Your task to perform on an android device: Open network settings Image 0: 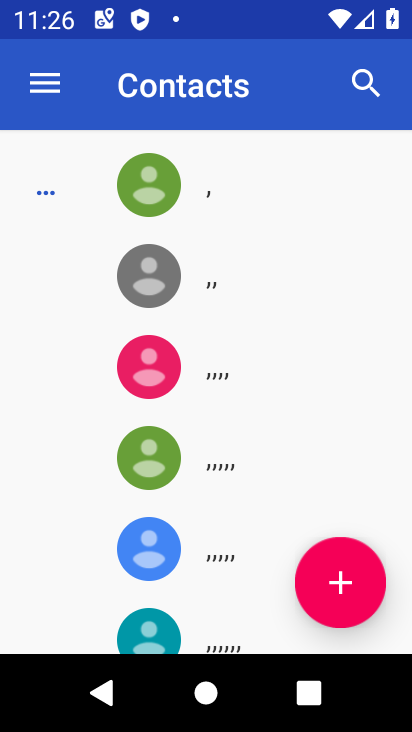
Step 0: press home button
Your task to perform on an android device: Open network settings Image 1: 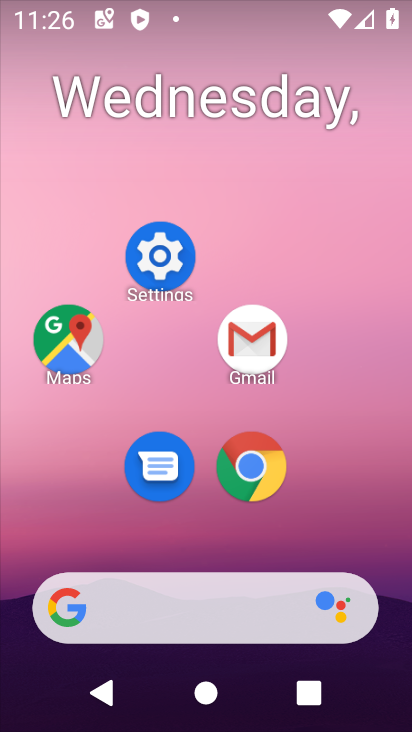
Step 1: drag from (200, 528) to (232, 134)
Your task to perform on an android device: Open network settings Image 2: 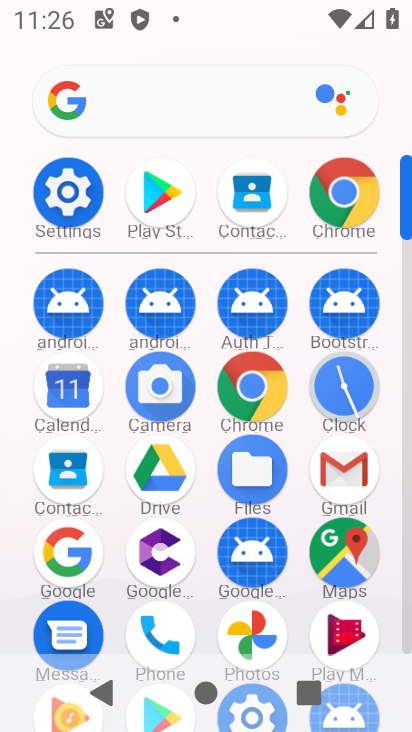
Step 2: click (90, 199)
Your task to perform on an android device: Open network settings Image 3: 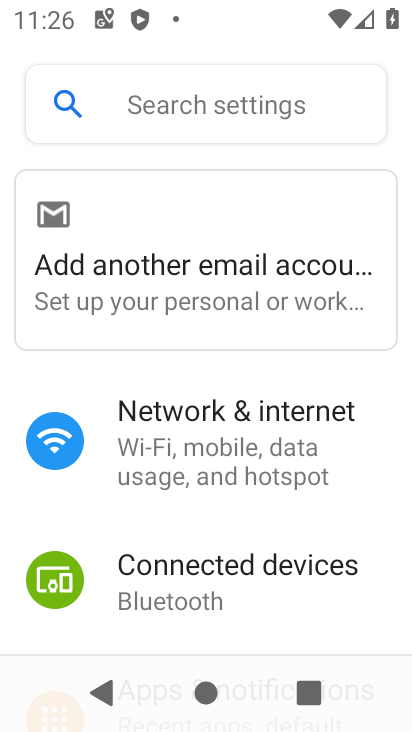
Step 3: click (194, 109)
Your task to perform on an android device: Open network settings Image 4: 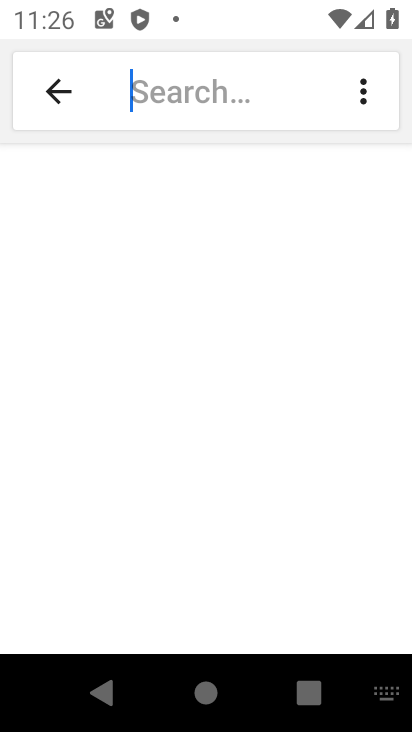
Step 4: click (68, 96)
Your task to perform on an android device: Open network settings Image 5: 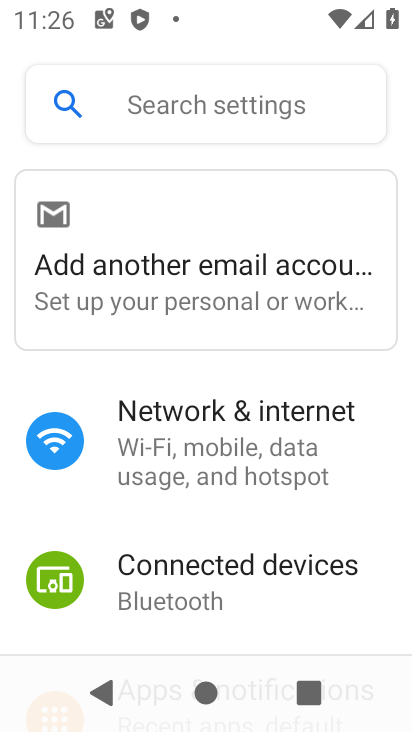
Step 5: drag from (151, 238) to (210, 16)
Your task to perform on an android device: Open network settings Image 6: 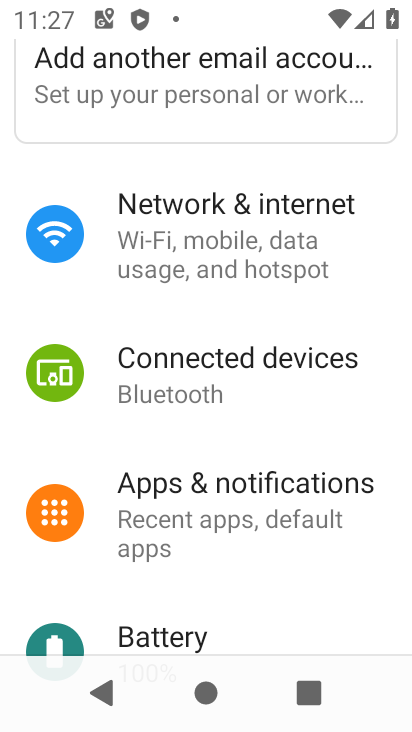
Step 6: drag from (255, 543) to (276, 367)
Your task to perform on an android device: Open network settings Image 7: 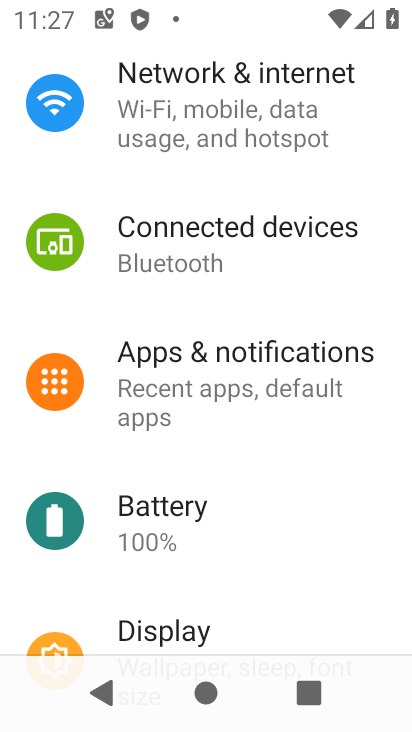
Step 7: drag from (263, 575) to (285, 395)
Your task to perform on an android device: Open network settings Image 8: 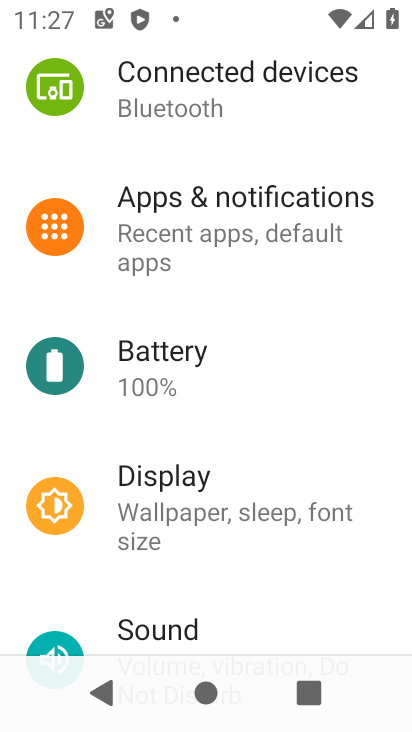
Step 8: drag from (282, 336) to (163, 730)
Your task to perform on an android device: Open network settings Image 9: 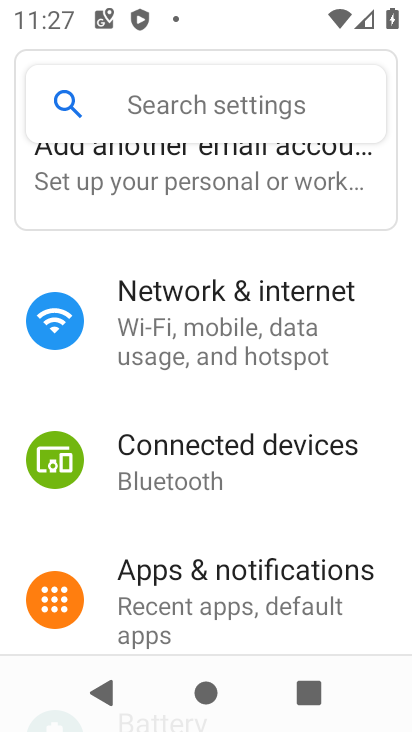
Step 9: click (172, 301)
Your task to perform on an android device: Open network settings Image 10: 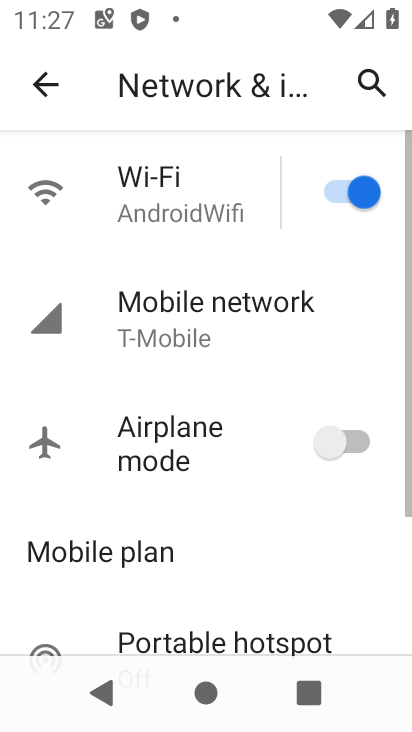
Step 10: drag from (239, 622) to (271, 263)
Your task to perform on an android device: Open network settings Image 11: 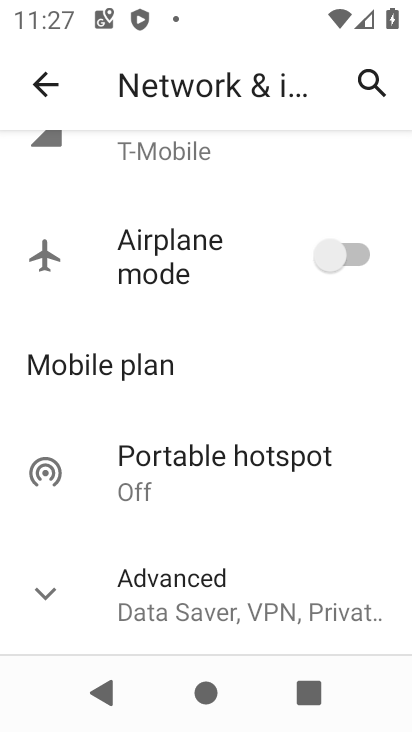
Step 11: drag from (221, 164) to (250, 482)
Your task to perform on an android device: Open network settings Image 12: 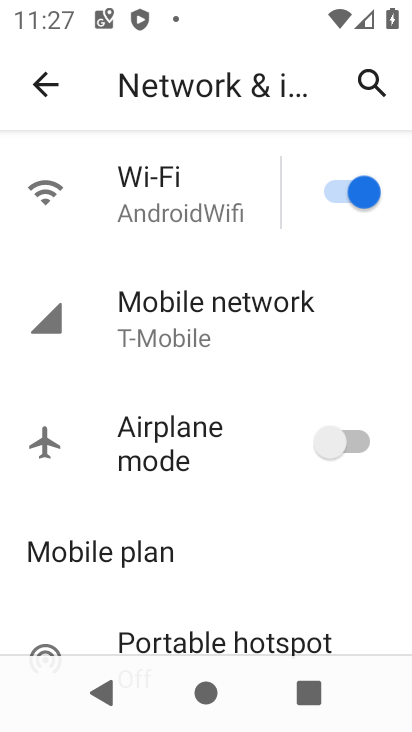
Step 12: click (210, 318)
Your task to perform on an android device: Open network settings Image 13: 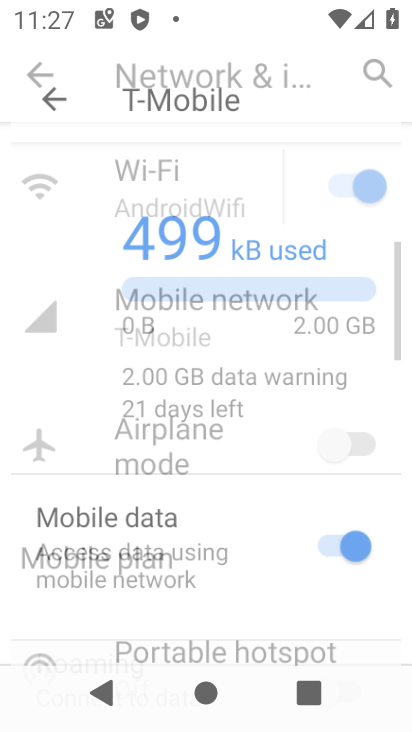
Step 13: task complete